Your task to perform on an android device: clear all cookies in the chrome app Image 0: 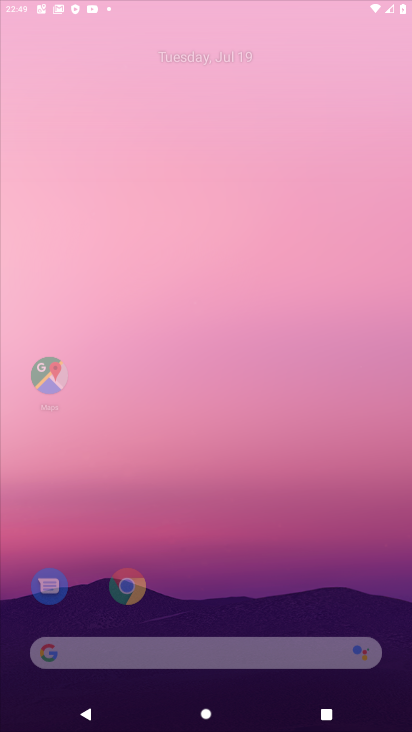
Step 0: drag from (311, 238) to (310, 109)
Your task to perform on an android device: clear all cookies in the chrome app Image 1: 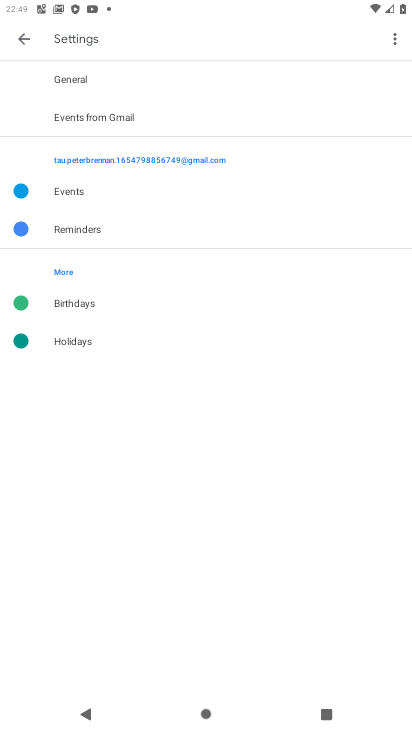
Step 1: press home button
Your task to perform on an android device: clear all cookies in the chrome app Image 2: 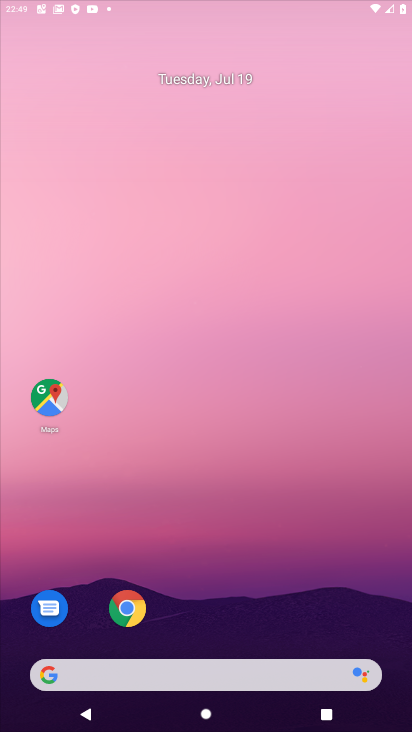
Step 2: drag from (295, 445) to (285, 89)
Your task to perform on an android device: clear all cookies in the chrome app Image 3: 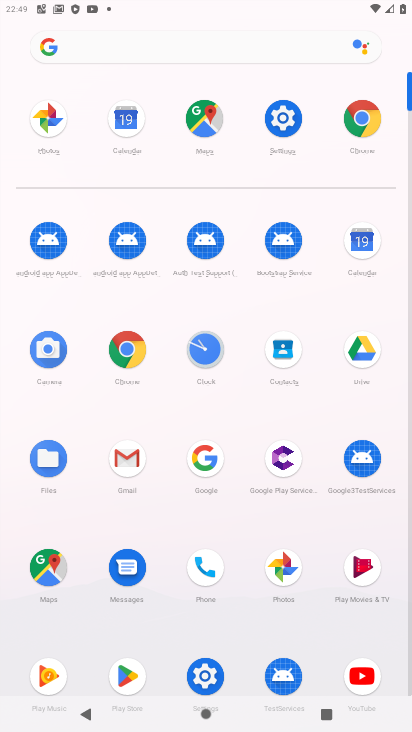
Step 3: click (122, 353)
Your task to perform on an android device: clear all cookies in the chrome app Image 4: 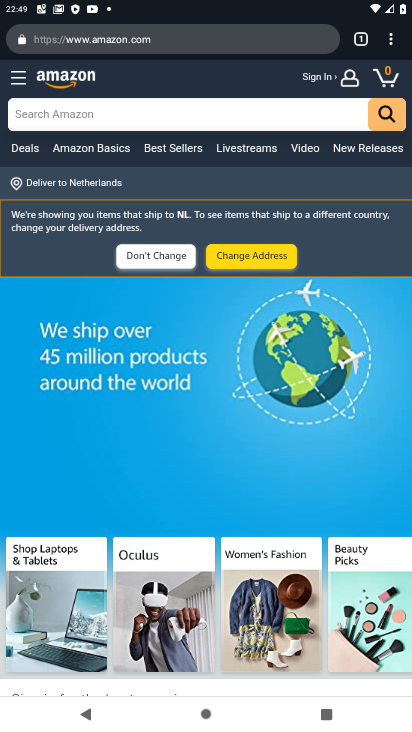
Step 4: drag from (391, 43) to (245, 228)
Your task to perform on an android device: clear all cookies in the chrome app Image 5: 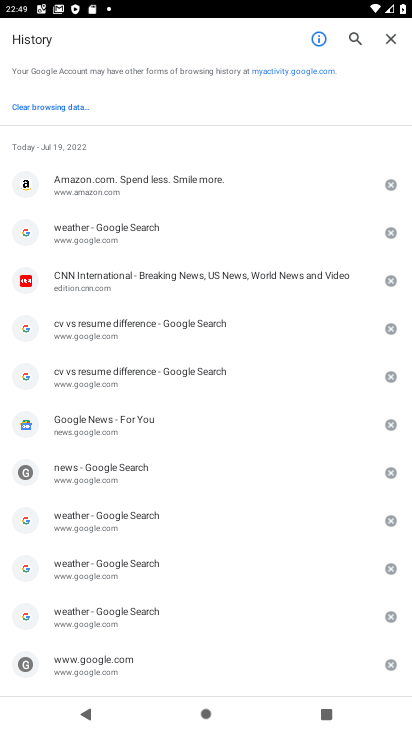
Step 5: click (55, 100)
Your task to perform on an android device: clear all cookies in the chrome app Image 6: 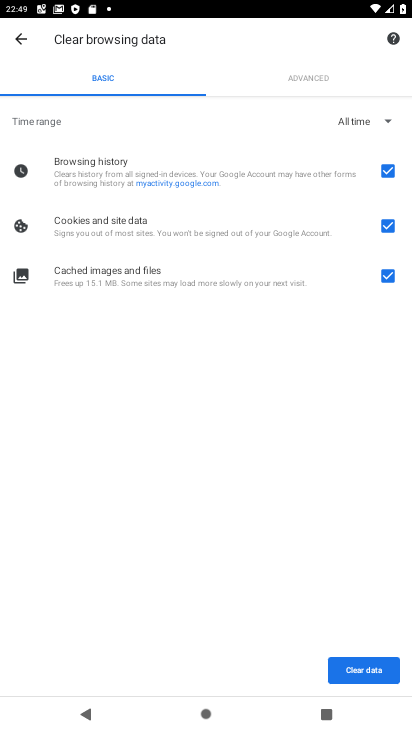
Step 6: click (357, 677)
Your task to perform on an android device: clear all cookies in the chrome app Image 7: 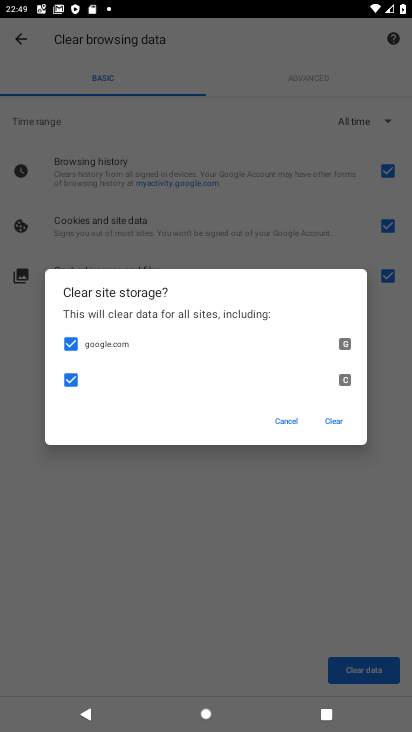
Step 7: click (326, 421)
Your task to perform on an android device: clear all cookies in the chrome app Image 8: 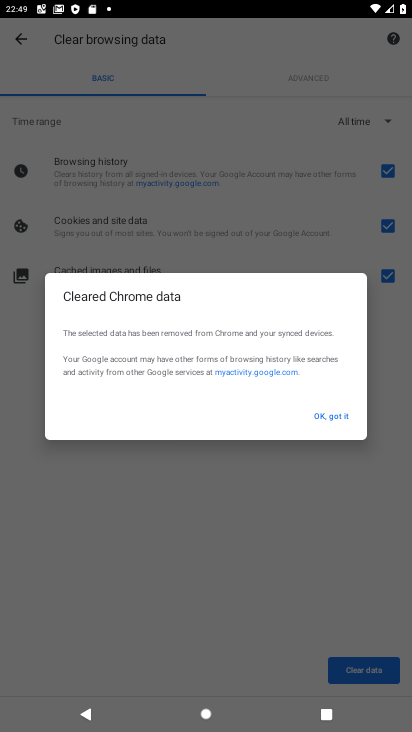
Step 8: task complete